Your task to perform on an android device: Open Google Chrome and open the bookmarks view Image 0: 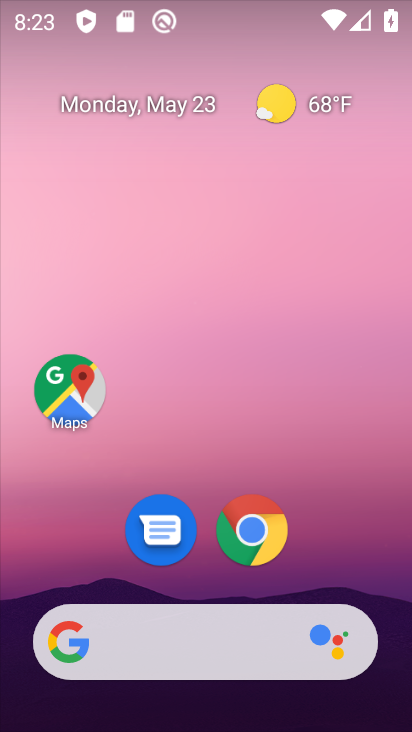
Step 0: click (246, 526)
Your task to perform on an android device: Open Google Chrome and open the bookmarks view Image 1: 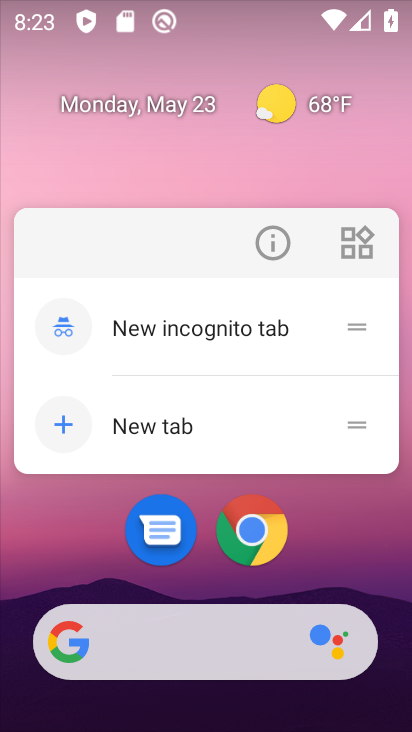
Step 1: click (257, 524)
Your task to perform on an android device: Open Google Chrome and open the bookmarks view Image 2: 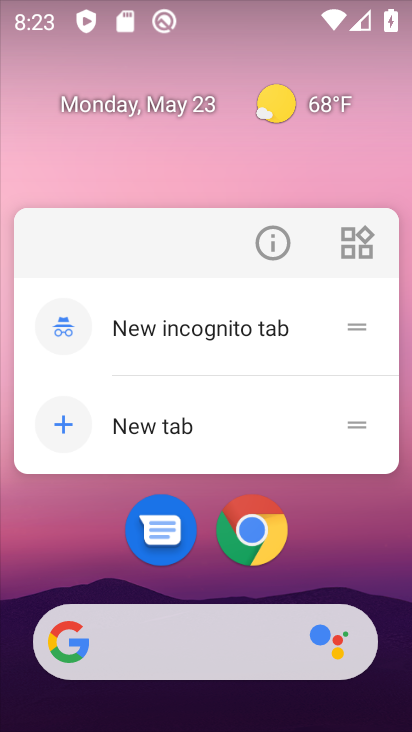
Step 2: click (251, 546)
Your task to perform on an android device: Open Google Chrome and open the bookmarks view Image 3: 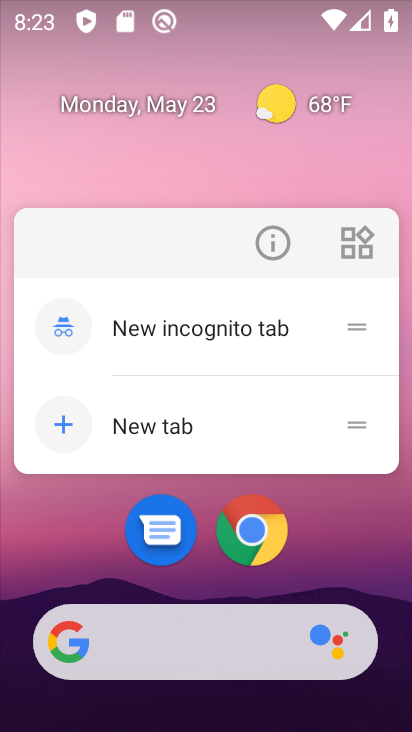
Step 3: click (249, 545)
Your task to perform on an android device: Open Google Chrome and open the bookmarks view Image 4: 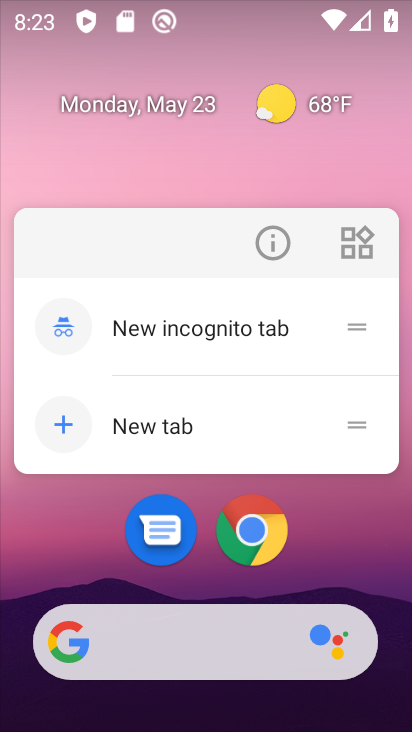
Step 4: click (271, 529)
Your task to perform on an android device: Open Google Chrome and open the bookmarks view Image 5: 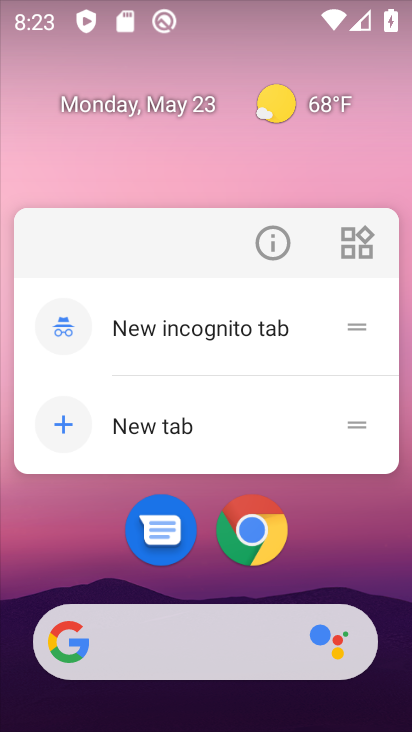
Step 5: click (263, 515)
Your task to perform on an android device: Open Google Chrome and open the bookmarks view Image 6: 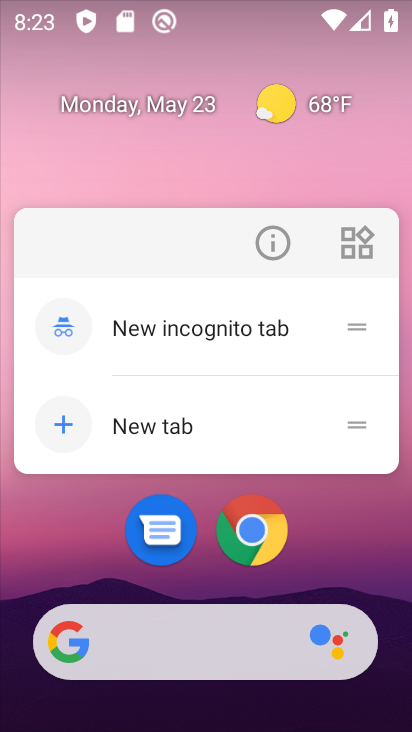
Step 6: click (246, 499)
Your task to perform on an android device: Open Google Chrome and open the bookmarks view Image 7: 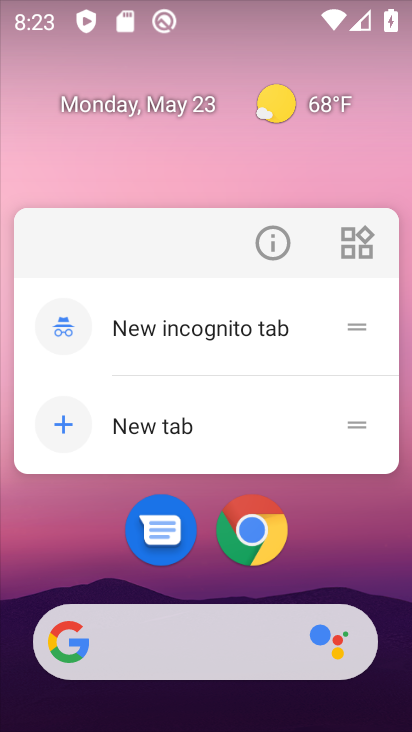
Step 7: click (242, 528)
Your task to perform on an android device: Open Google Chrome and open the bookmarks view Image 8: 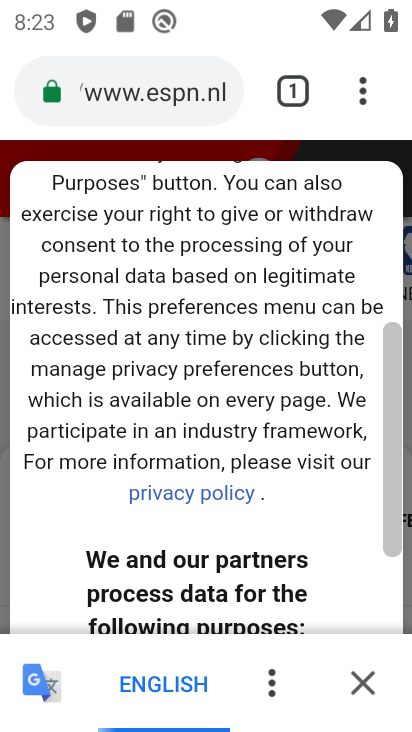
Step 8: task complete